Your task to perform on an android device: Open the web browser Image 0: 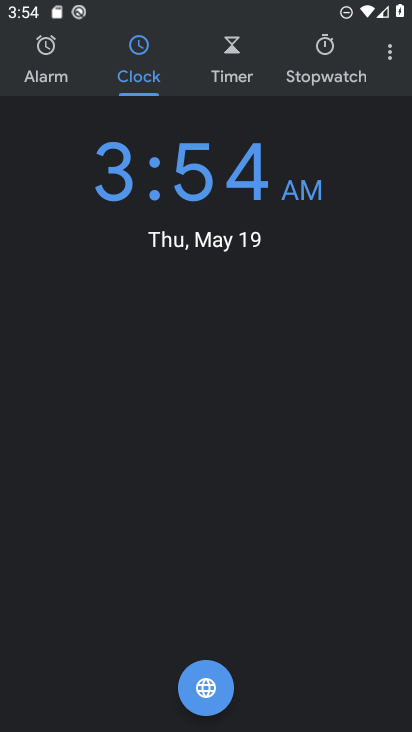
Step 0: drag from (225, 633) to (231, 224)
Your task to perform on an android device: Open the web browser Image 1: 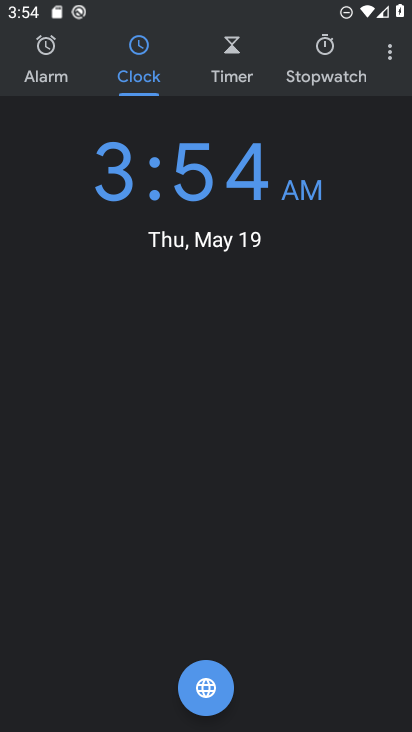
Step 1: press home button
Your task to perform on an android device: Open the web browser Image 2: 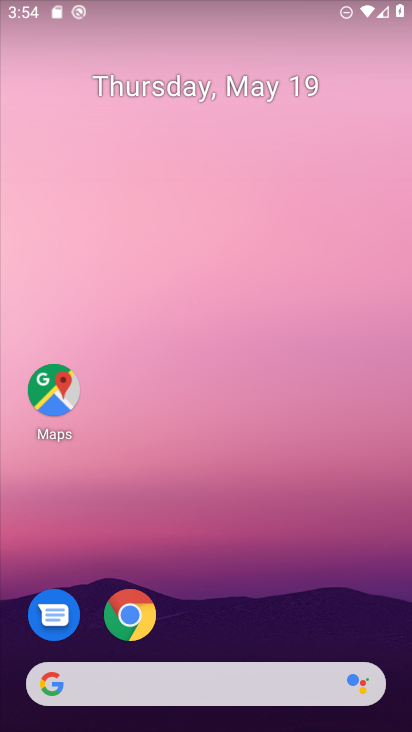
Step 2: click (150, 608)
Your task to perform on an android device: Open the web browser Image 3: 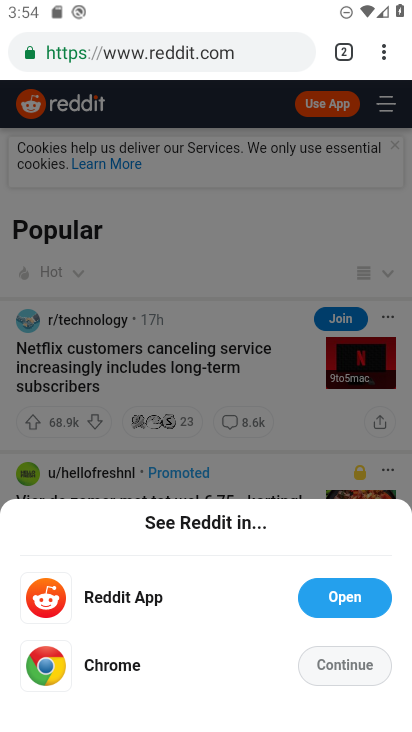
Step 3: task complete